Your task to perform on an android device: Go to Google Image 0: 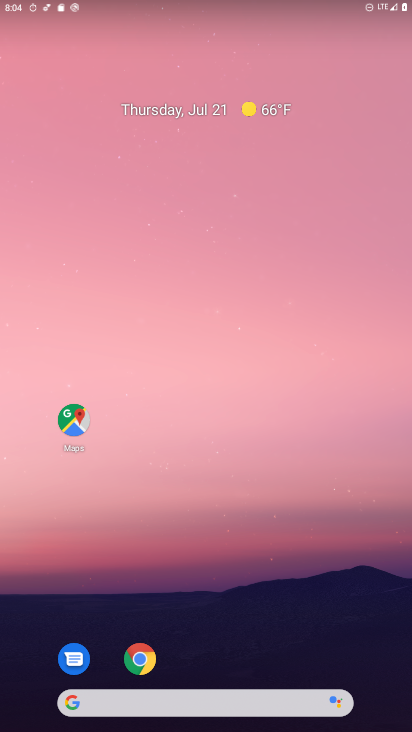
Step 0: drag from (209, 643) to (178, 1)
Your task to perform on an android device: Go to Google Image 1: 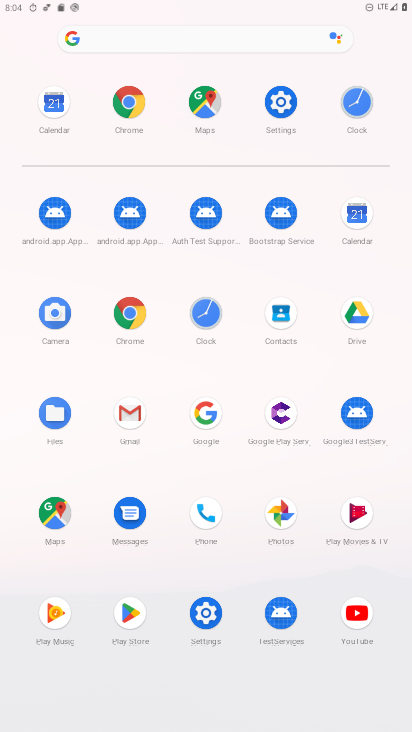
Step 1: click (198, 404)
Your task to perform on an android device: Go to Google Image 2: 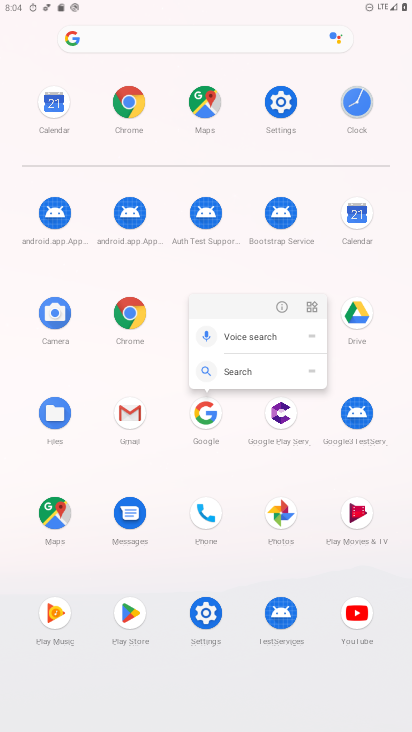
Step 2: click (282, 305)
Your task to perform on an android device: Go to Google Image 3: 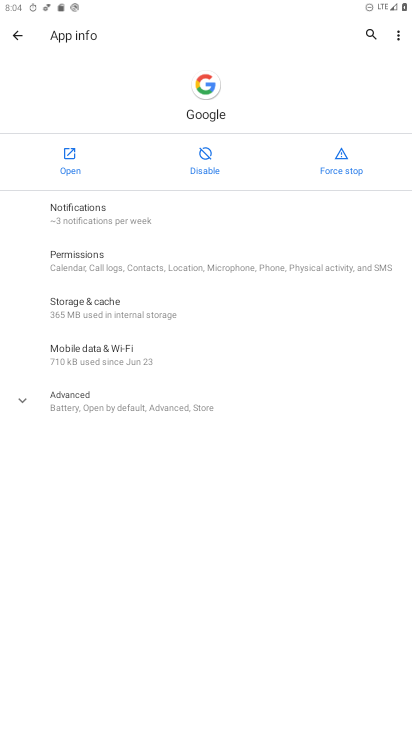
Step 3: click (74, 151)
Your task to perform on an android device: Go to Google Image 4: 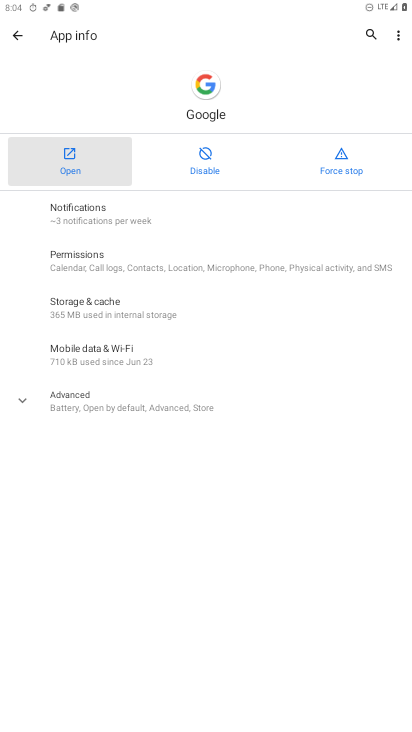
Step 4: click (74, 151)
Your task to perform on an android device: Go to Google Image 5: 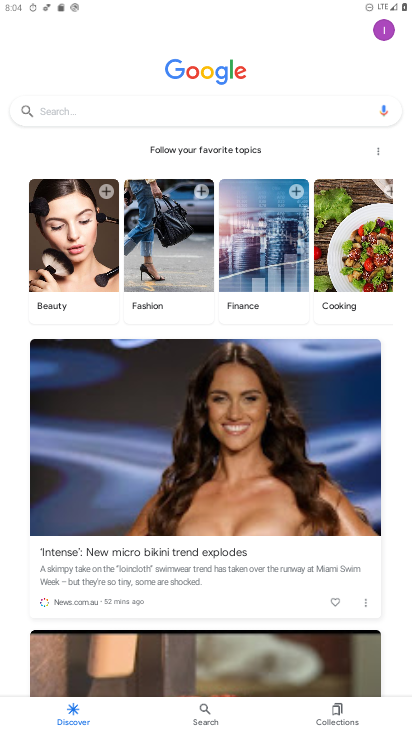
Step 5: task complete